Your task to perform on an android device: turn off smart reply in the gmail app Image 0: 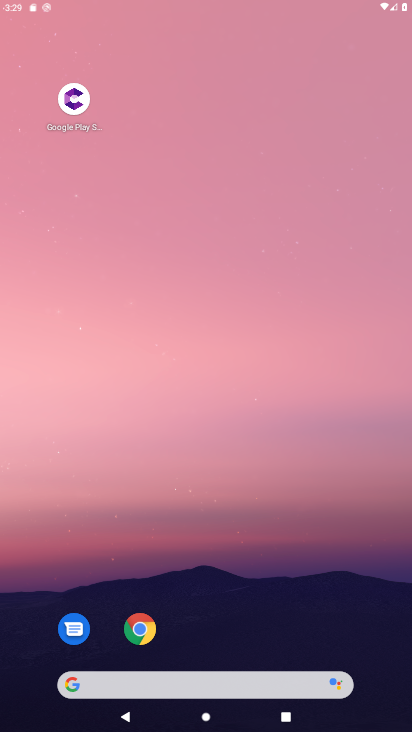
Step 0: press home button
Your task to perform on an android device: turn off smart reply in the gmail app Image 1: 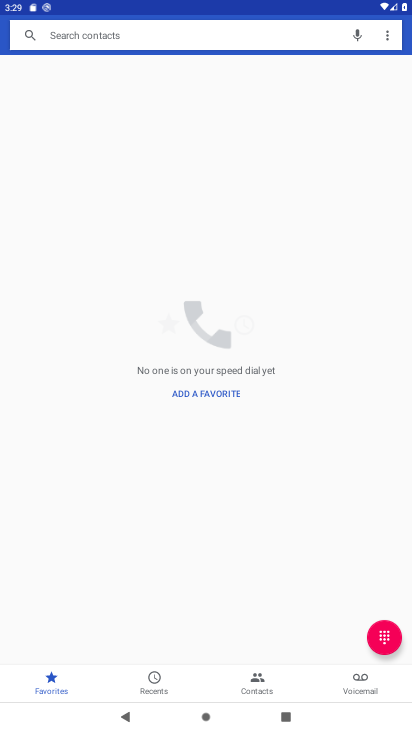
Step 1: click (395, 16)
Your task to perform on an android device: turn off smart reply in the gmail app Image 2: 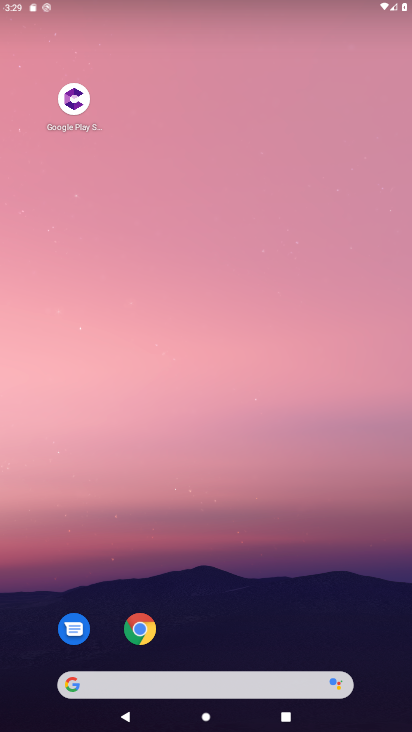
Step 2: drag from (267, 628) to (265, 210)
Your task to perform on an android device: turn off smart reply in the gmail app Image 3: 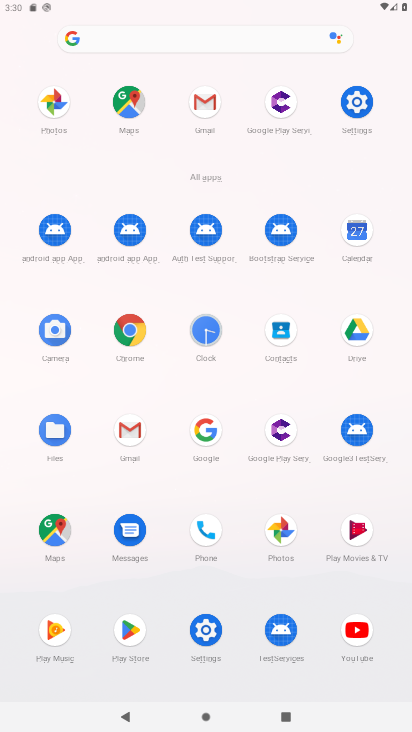
Step 3: click (114, 440)
Your task to perform on an android device: turn off smart reply in the gmail app Image 4: 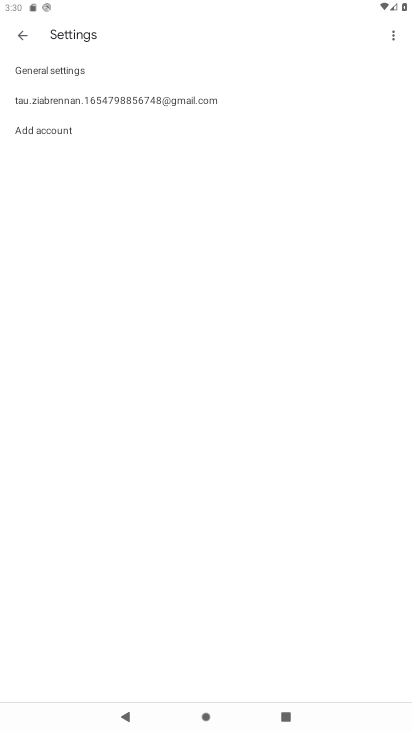
Step 4: click (98, 96)
Your task to perform on an android device: turn off smart reply in the gmail app Image 5: 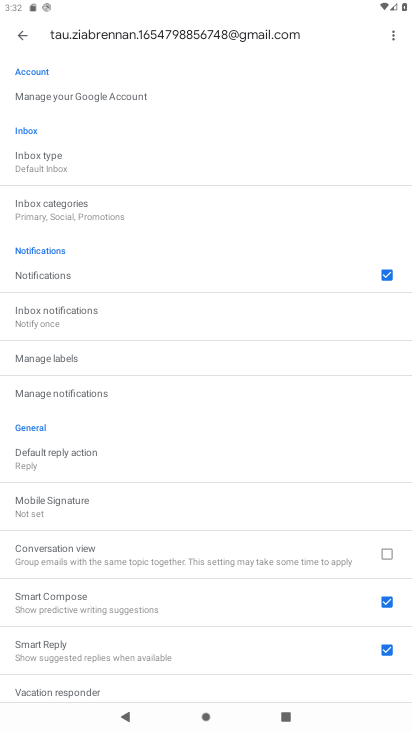
Step 5: click (73, 638)
Your task to perform on an android device: turn off smart reply in the gmail app Image 6: 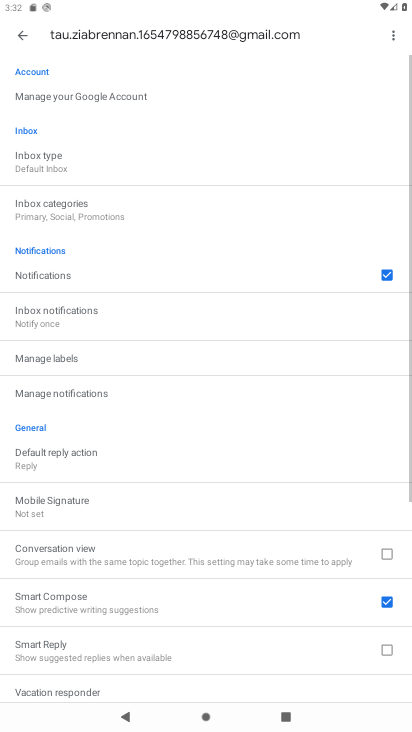
Step 6: task complete